Your task to perform on an android device: turn on bluetooth scan Image 0: 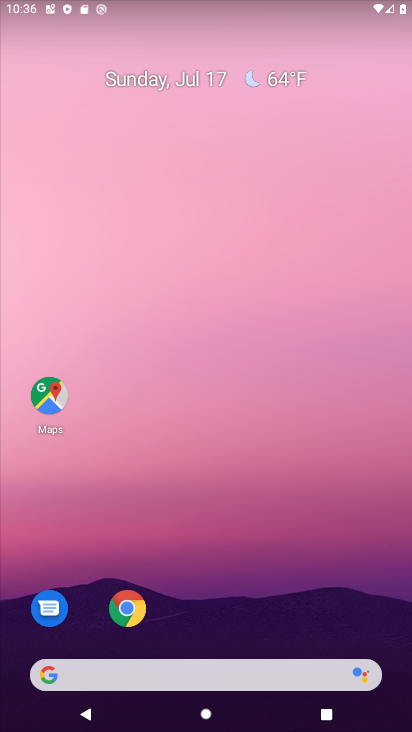
Step 0: click (187, 75)
Your task to perform on an android device: turn on bluetooth scan Image 1: 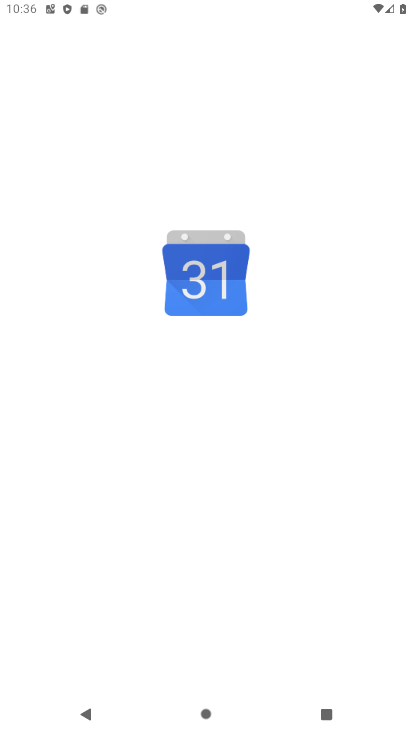
Step 1: drag from (19, 693) to (182, 29)
Your task to perform on an android device: turn on bluetooth scan Image 2: 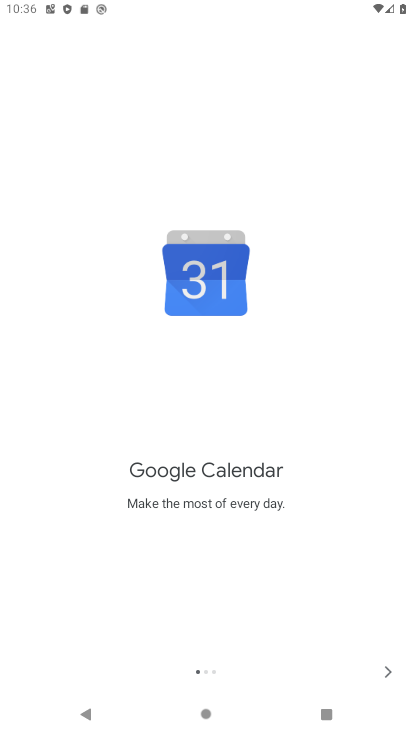
Step 2: press home button
Your task to perform on an android device: turn on bluetooth scan Image 3: 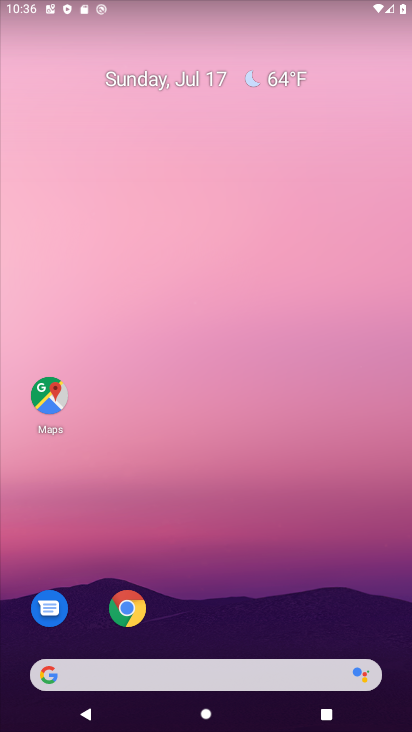
Step 3: drag from (53, 710) to (137, 259)
Your task to perform on an android device: turn on bluetooth scan Image 4: 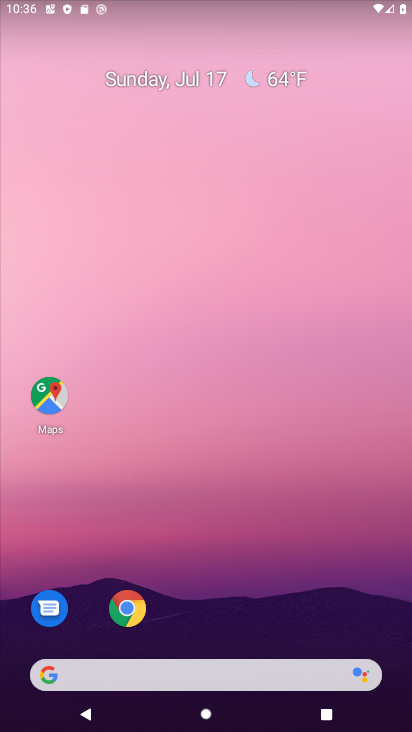
Step 4: drag from (31, 688) to (226, 17)
Your task to perform on an android device: turn on bluetooth scan Image 5: 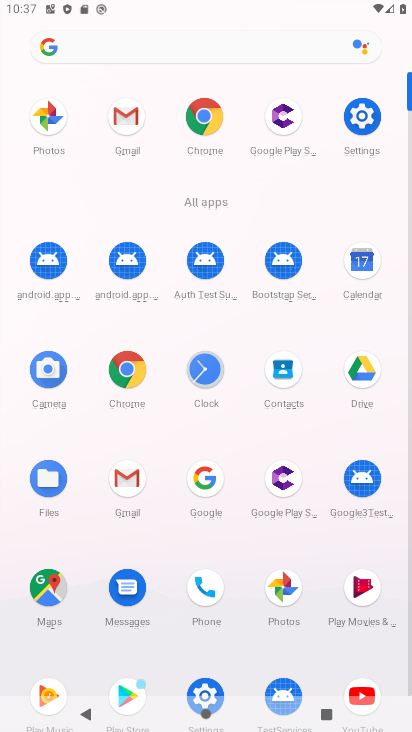
Step 5: click (207, 692)
Your task to perform on an android device: turn on bluetooth scan Image 6: 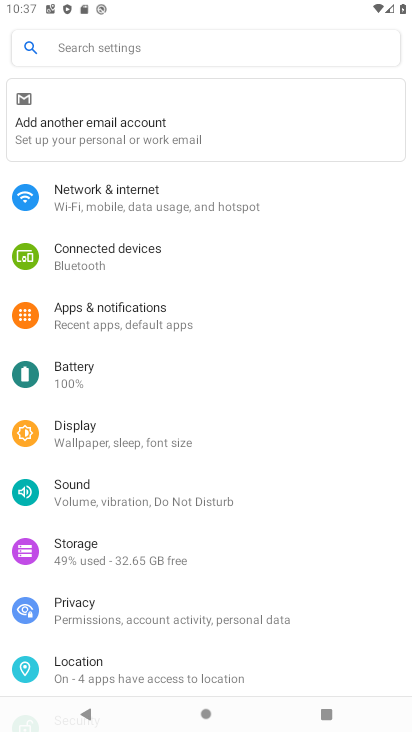
Step 6: click (86, 252)
Your task to perform on an android device: turn on bluetooth scan Image 7: 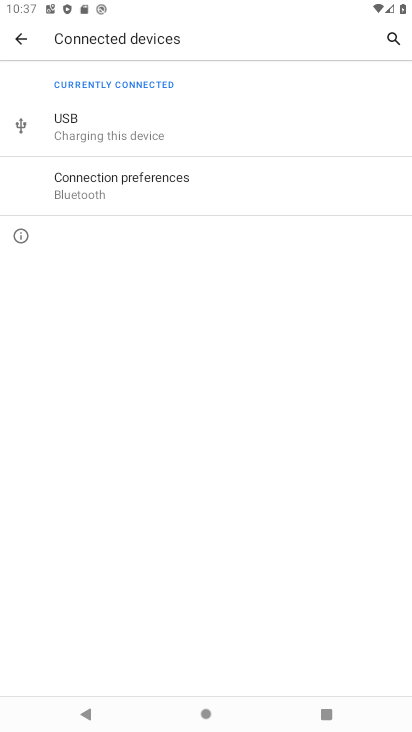
Step 7: click (126, 178)
Your task to perform on an android device: turn on bluetooth scan Image 8: 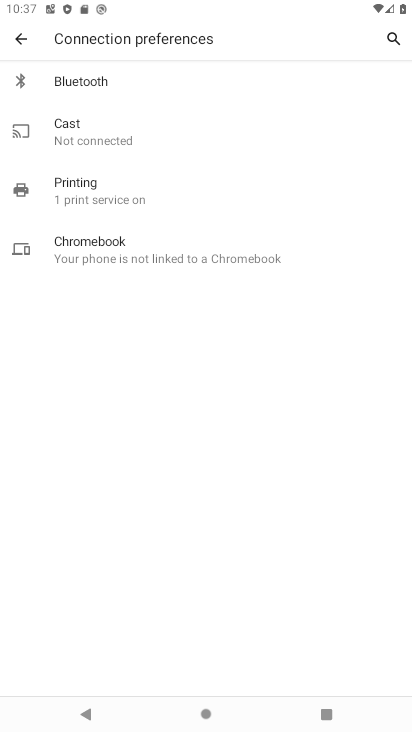
Step 8: click (93, 80)
Your task to perform on an android device: turn on bluetooth scan Image 9: 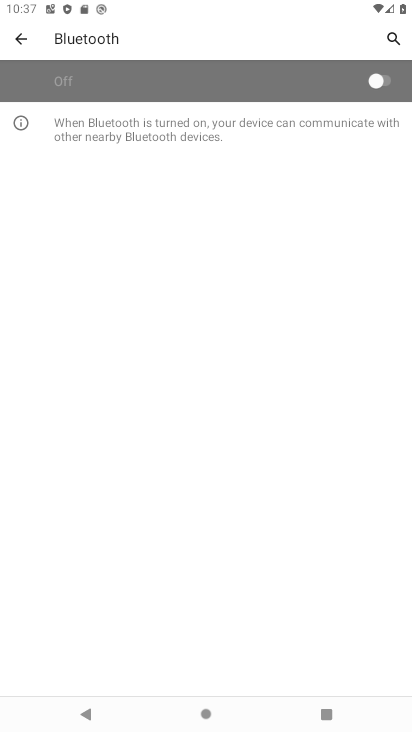
Step 9: task complete